Your task to perform on an android device: How do I get to the nearest Subway? Image 0: 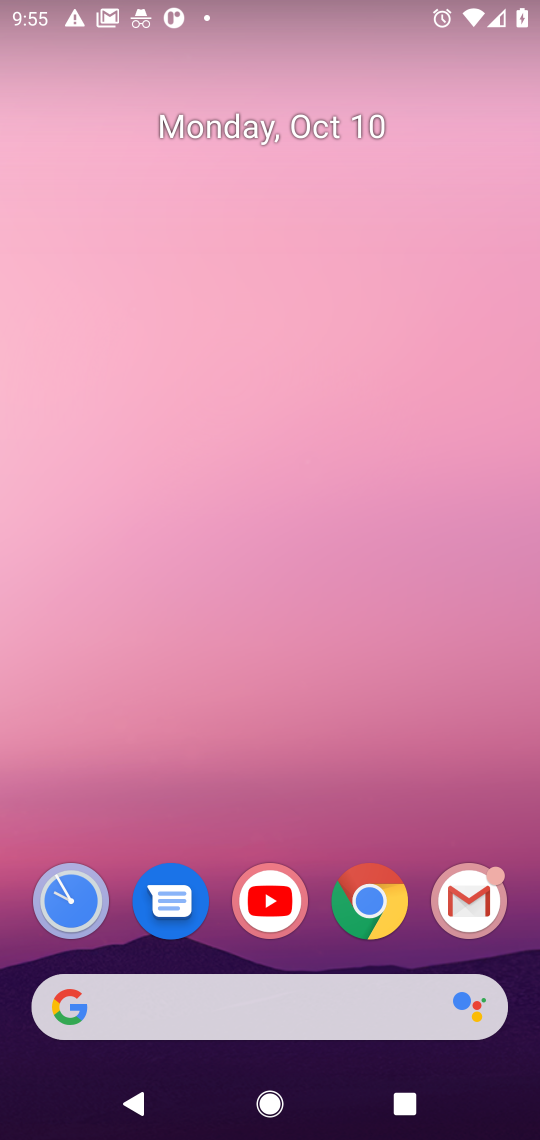
Step 0: press home button
Your task to perform on an android device: How do I get to the nearest Subway? Image 1: 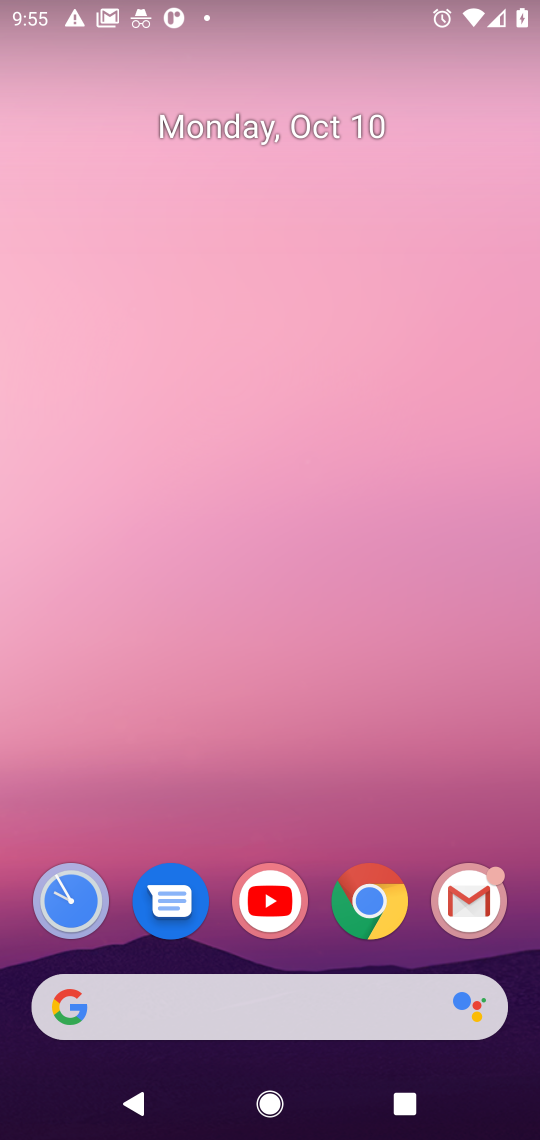
Step 1: click (199, 1013)
Your task to perform on an android device: How do I get to the nearest Subway? Image 2: 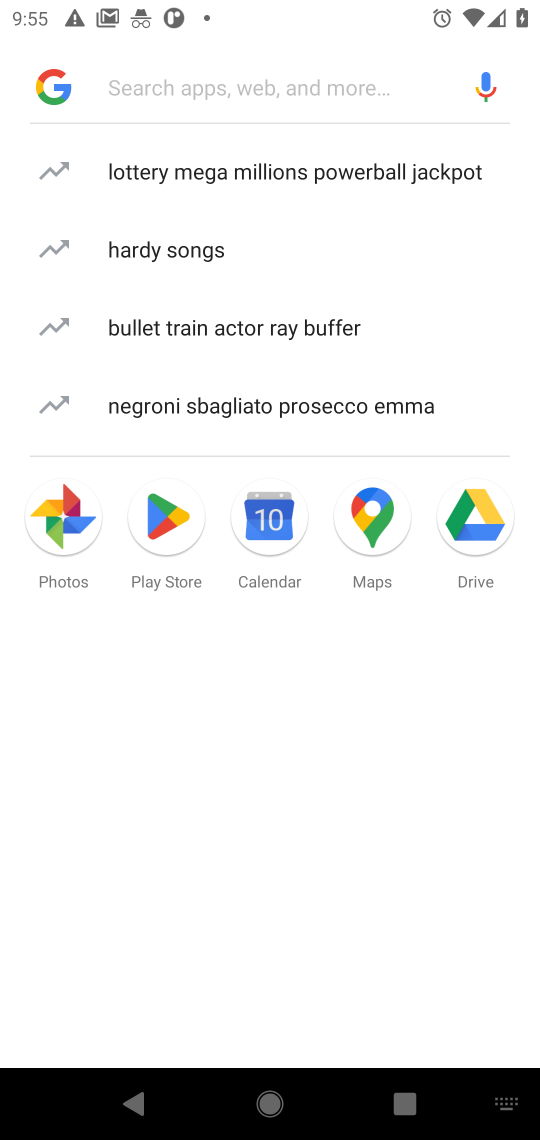
Step 2: type "How do I get to the nearest Subway"
Your task to perform on an android device: How do I get to the nearest Subway? Image 3: 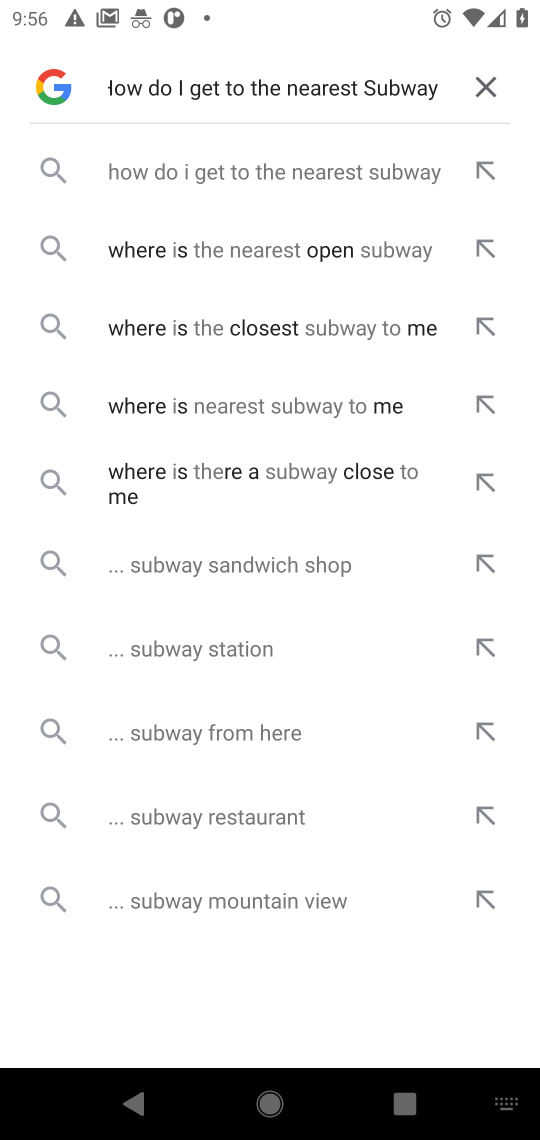
Step 3: press enter
Your task to perform on an android device: How do I get to the nearest Subway? Image 4: 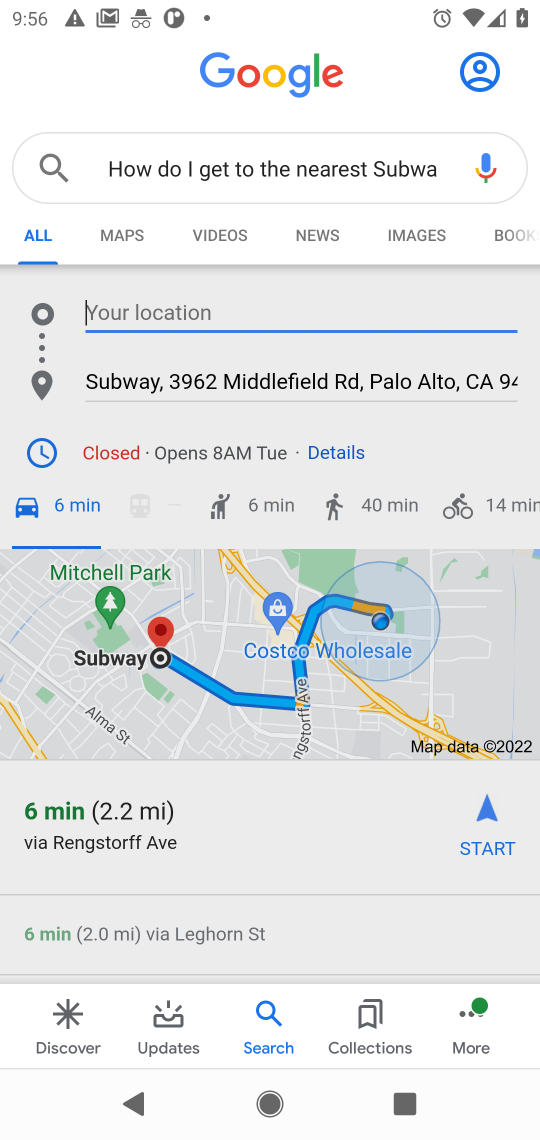
Step 4: task complete